Your task to perform on an android device: Is it going to rain today? Image 0: 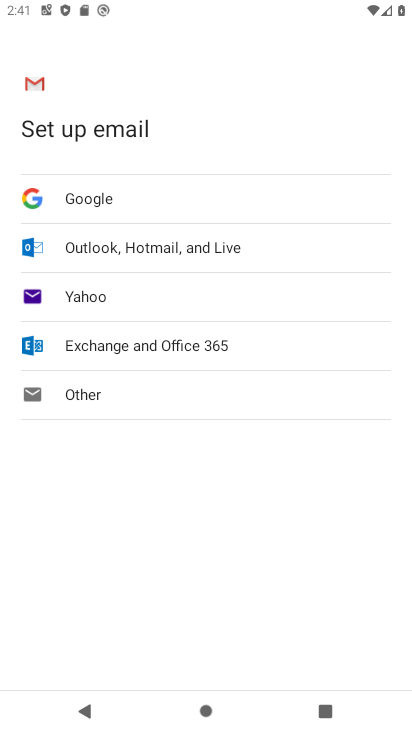
Step 0: press home button
Your task to perform on an android device: Is it going to rain today? Image 1: 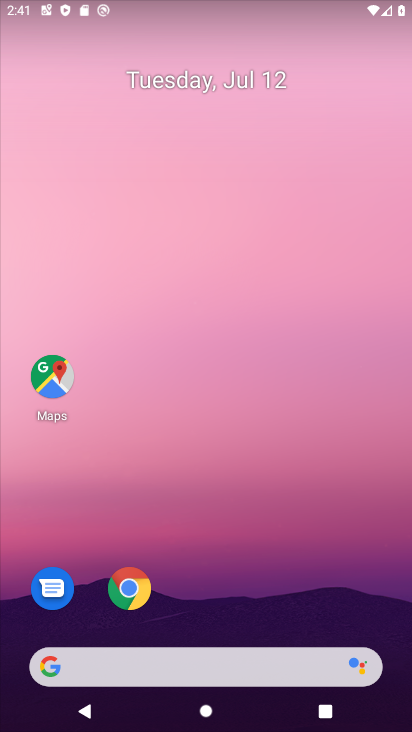
Step 1: click (134, 615)
Your task to perform on an android device: Is it going to rain today? Image 2: 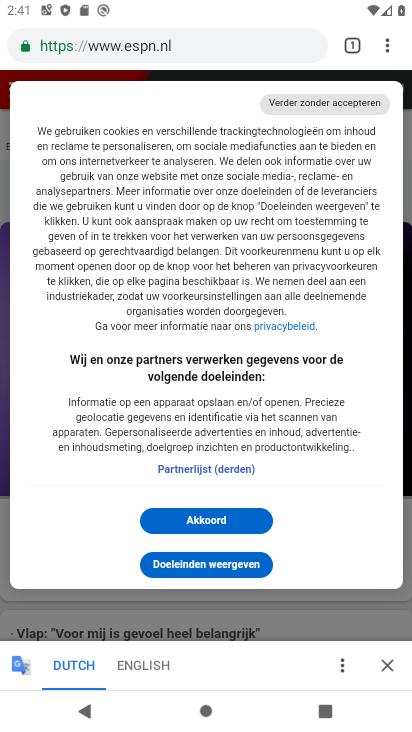
Step 2: click (169, 42)
Your task to perform on an android device: Is it going to rain today? Image 3: 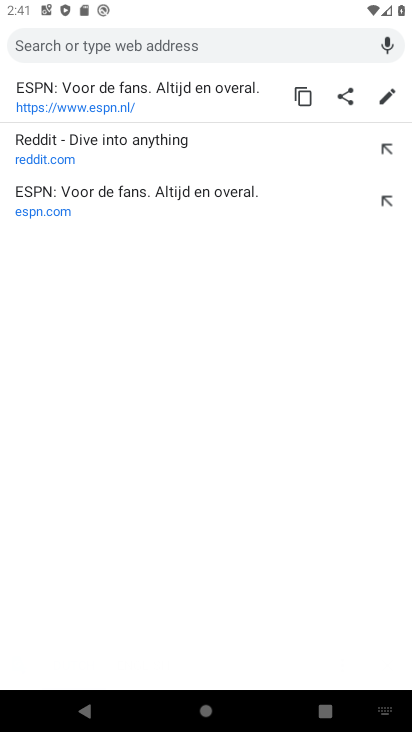
Step 3: type "weather today"
Your task to perform on an android device: Is it going to rain today? Image 4: 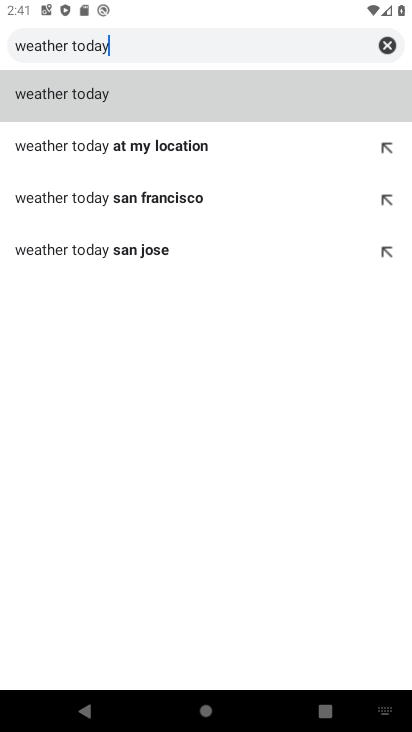
Step 4: click (146, 97)
Your task to perform on an android device: Is it going to rain today? Image 5: 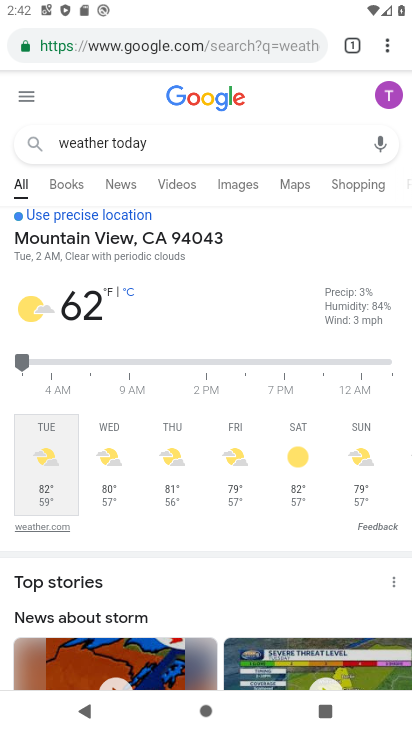
Step 5: task complete